Your task to perform on an android device: Open battery settings Image 0: 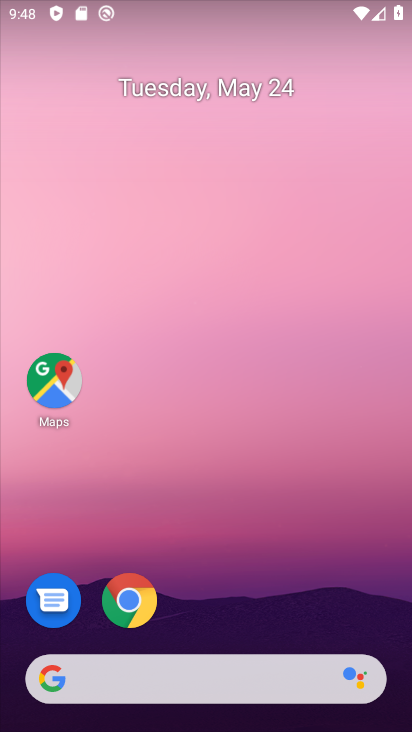
Step 0: drag from (270, 599) to (290, 4)
Your task to perform on an android device: Open battery settings Image 1: 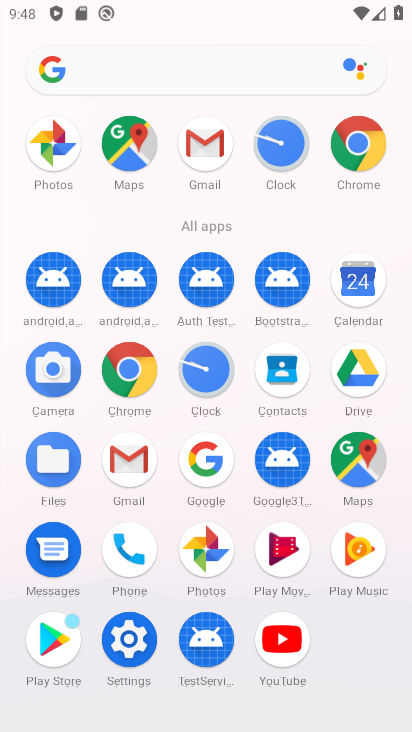
Step 1: click (133, 644)
Your task to perform on an android device: Open battery settings Image 2: 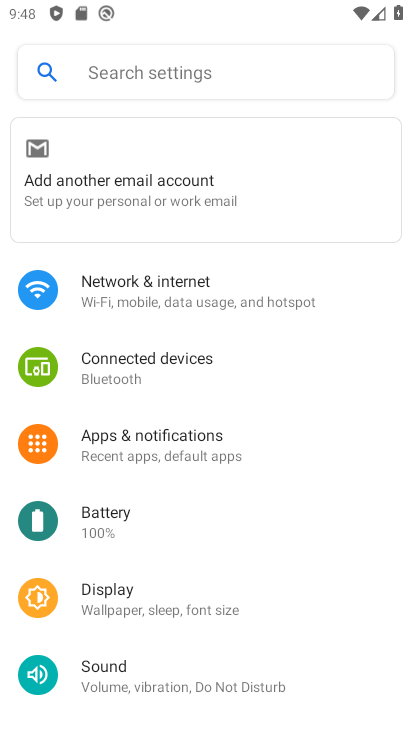
Step 2: click (83, 531)
Your task to perform on an android device: Open battery settings Image 3: 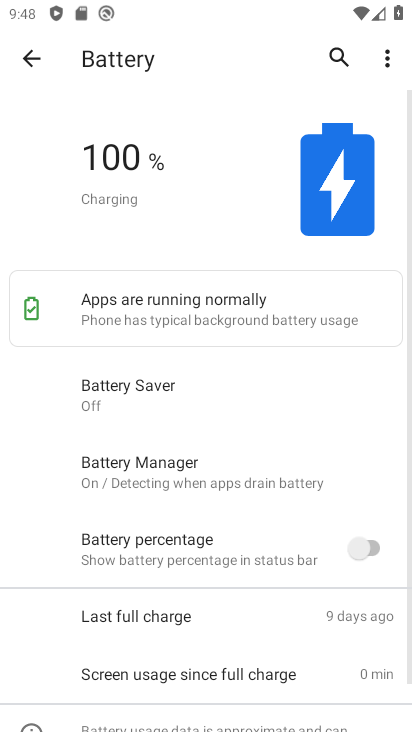
Step 3: task complete